Your task to perform on an android device: open app "Life360: Find Family & Friends" (install if not already installed) Image 0: 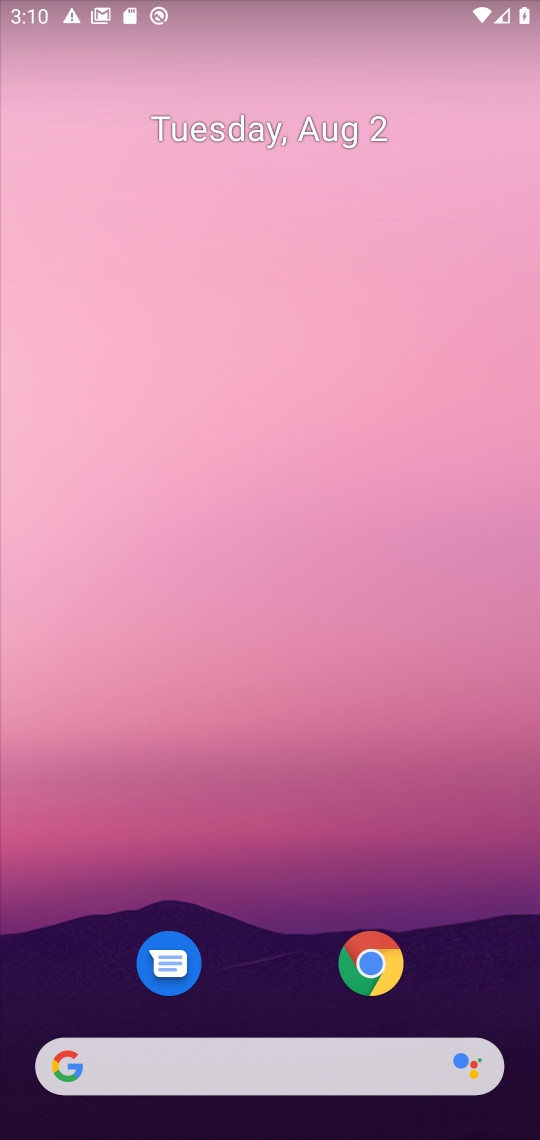
Step 0: drag from (241, 823) to (238, 265)
Your task to perform on an android device: open app "Life360: Find Family & Friends" (install if not already installed) Image 1: 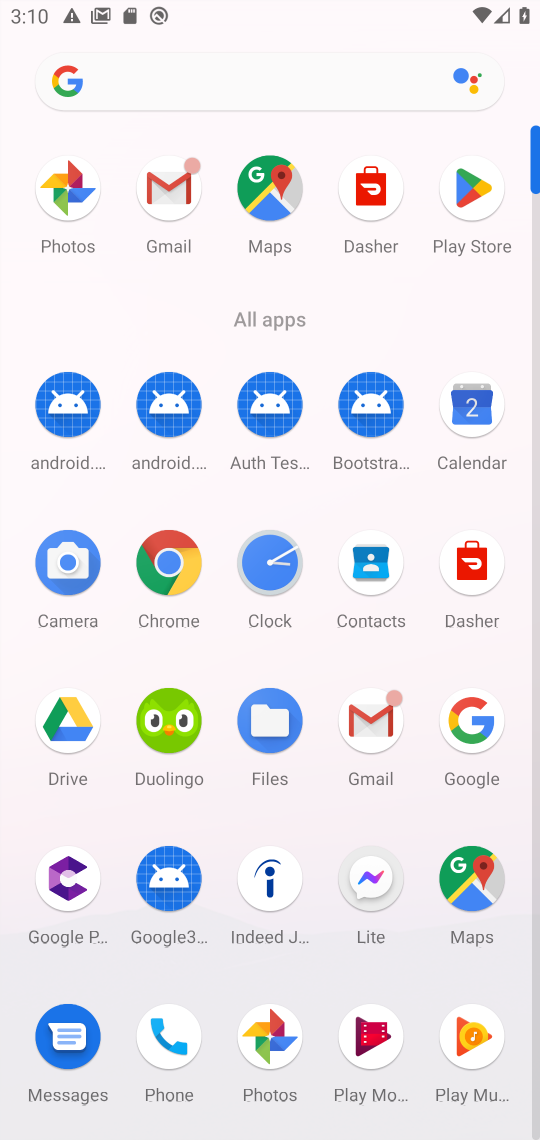
Step 1: click (458, 186)
Your task to perform on an android device: open app "Life360: Find Family & Friends" (install if not already installed) Image 2: 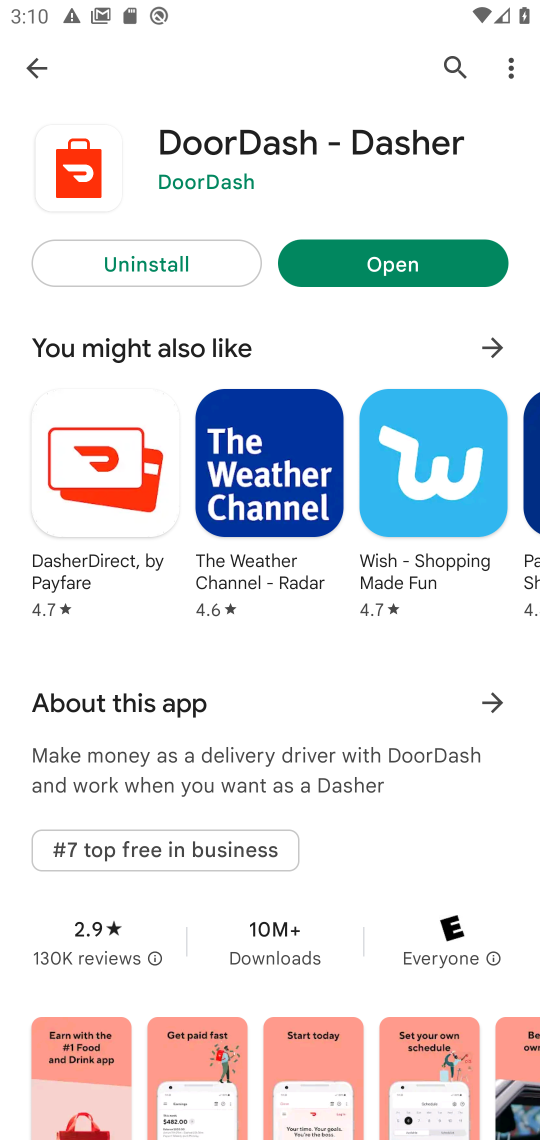
Step 2: click (450, 69)
Your task to perform on an android device: open app "Life360: Find Family & Friends" (install if not already installed) Image 3: 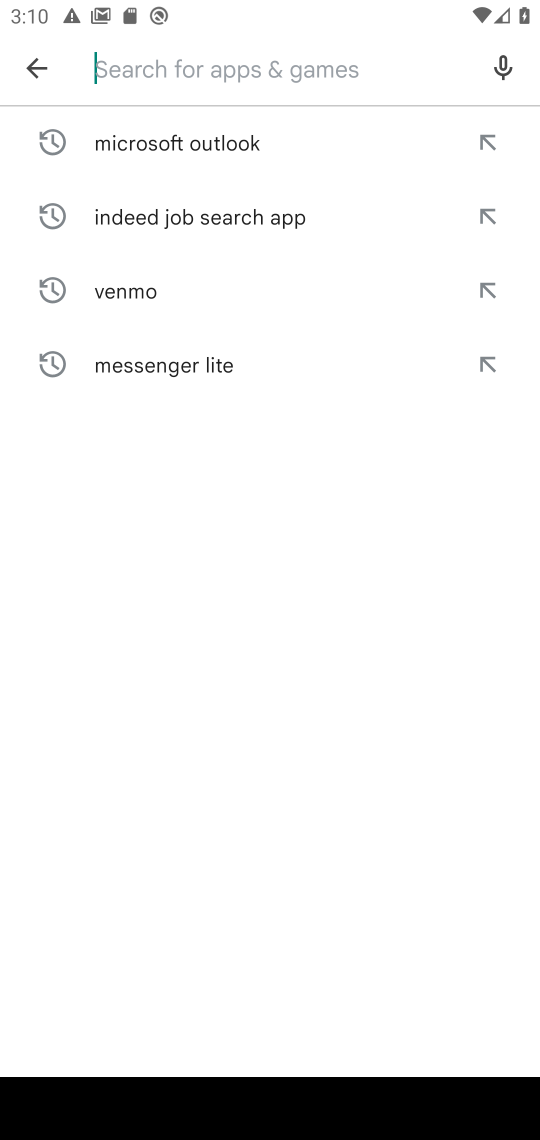
Step 3: type "Life360: Find Family & Friends"
Your task to perform on an android device: open app "Life360: Find Family & Friends" (install if not already installed) Image 4: 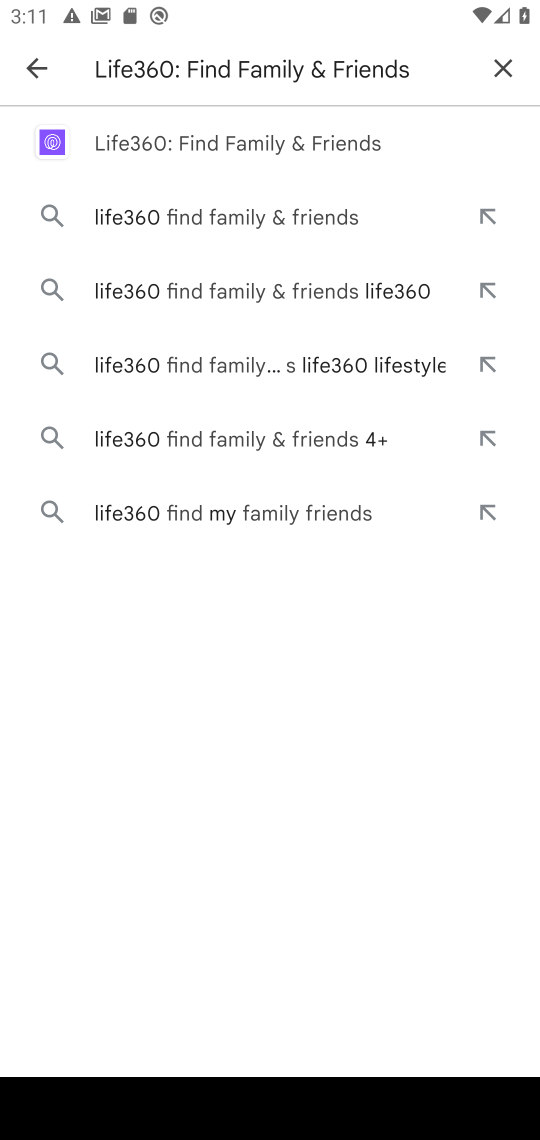
Step 4: click (177, 140)
Your task to perform on an android device: open app "Life360: Find Family & Friends" (install if not already installed) Image 5: 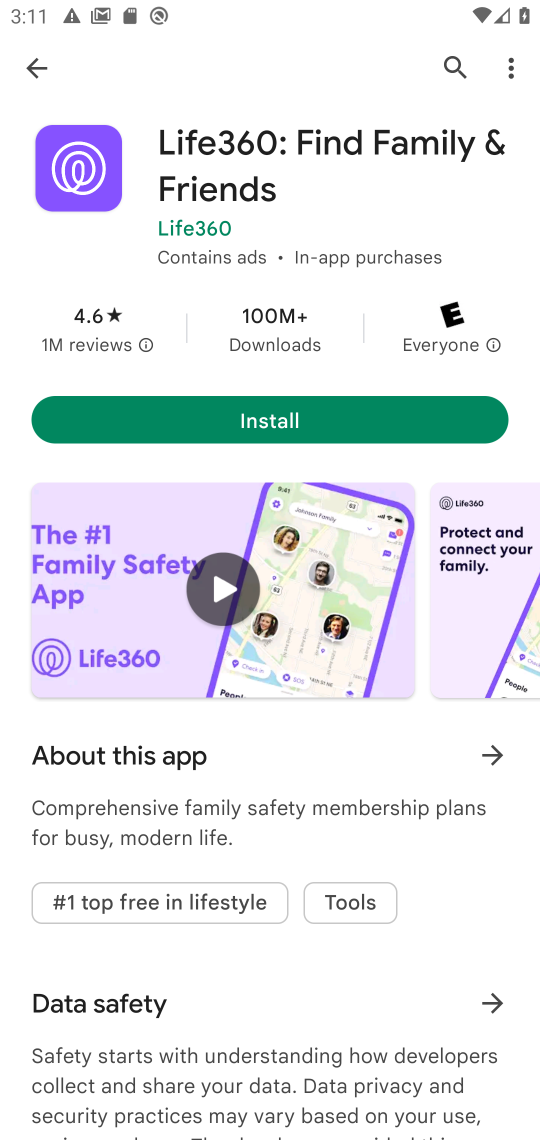
Step 5: click (277, 421)
Your task to perform on an android device: open app "Life360: Find Family & Friends" (install if not already installed) Image 6: 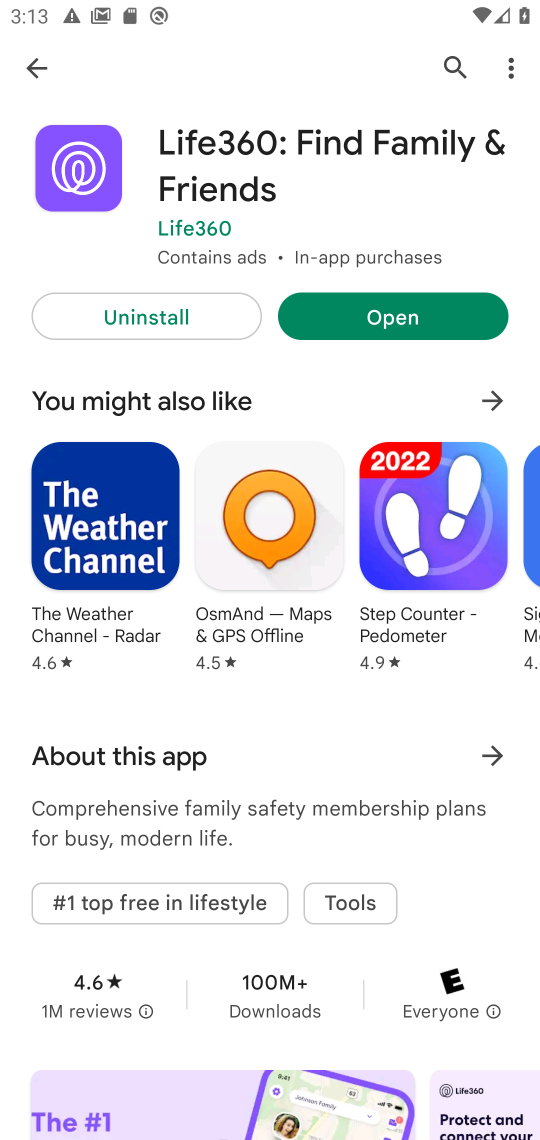
Step 6: click (328, 314)
Your task to perform on an android device: open app "Life360: Find Family & Friends" (install if not already installed) Image 7: 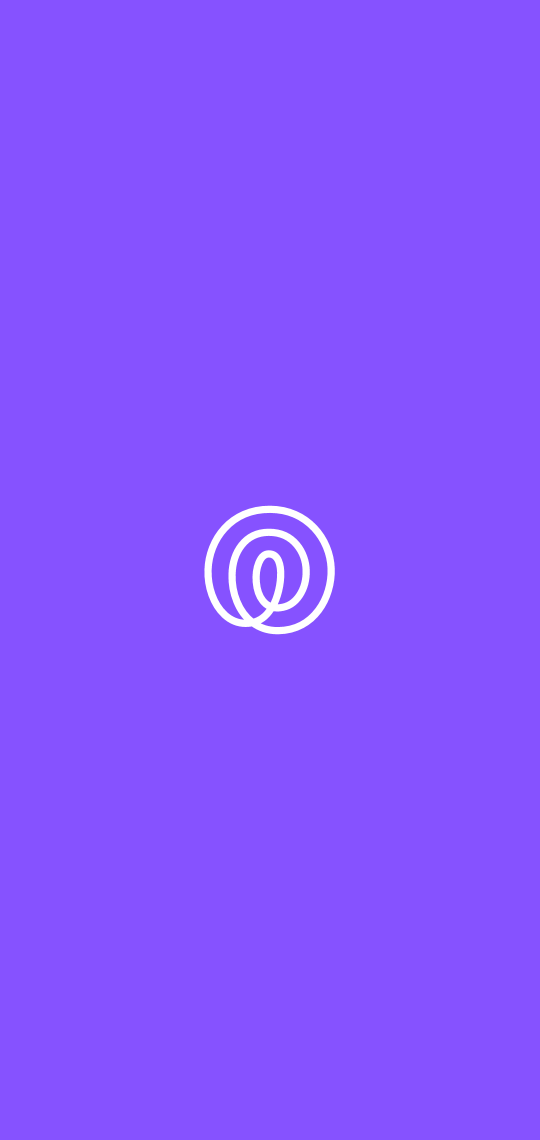
Step 7: task complete